Your task to perform on an android device: Go to Yahoo.com Image 0: 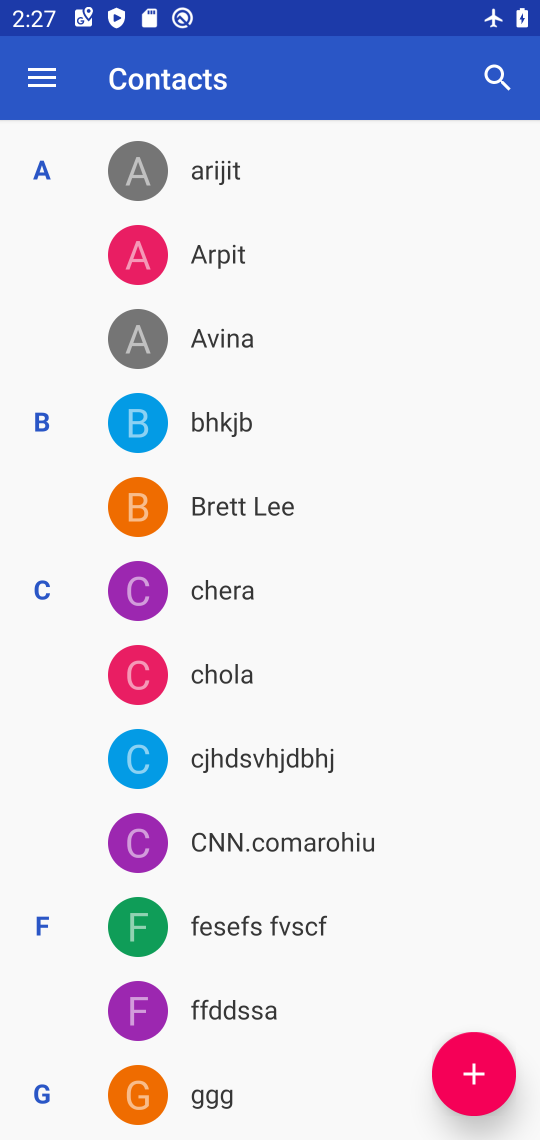
Step 0: press home button
Your task to perform on an android device: Go to Yahoo.com Image 1: 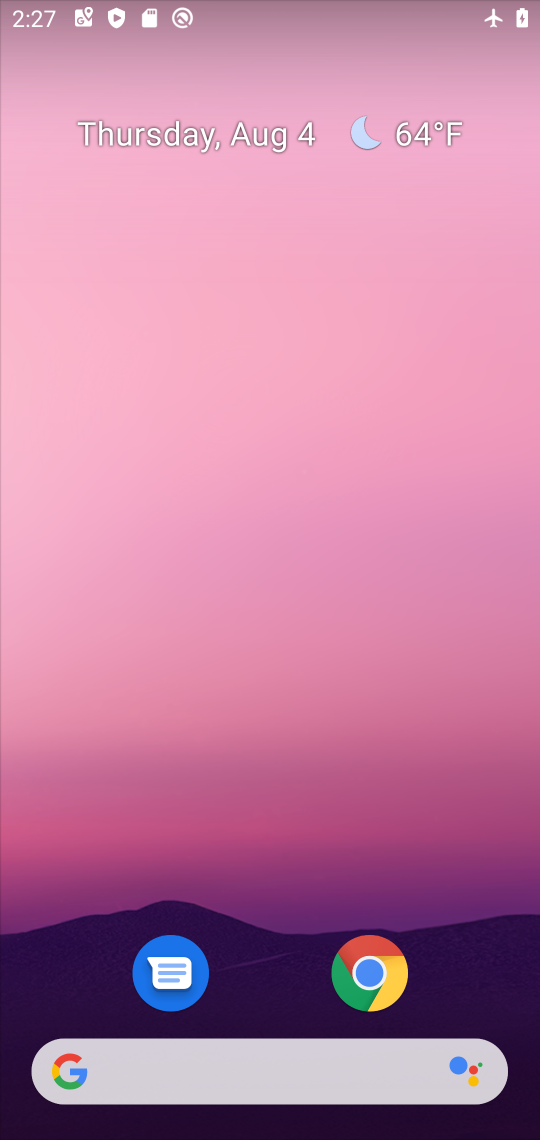
Step 1: click (339, 976)
Your task to perform on an android device: Go to Yahoo.com Image 2: 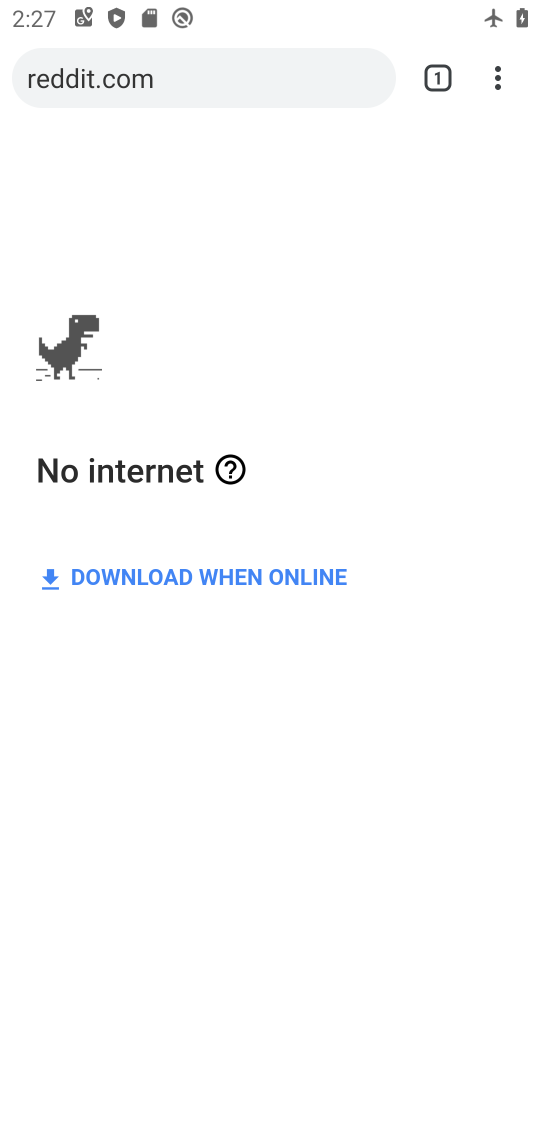
Step 2: click (444, 86)
Your task to perform on an android device: Go to Yahoo.com Image 3: 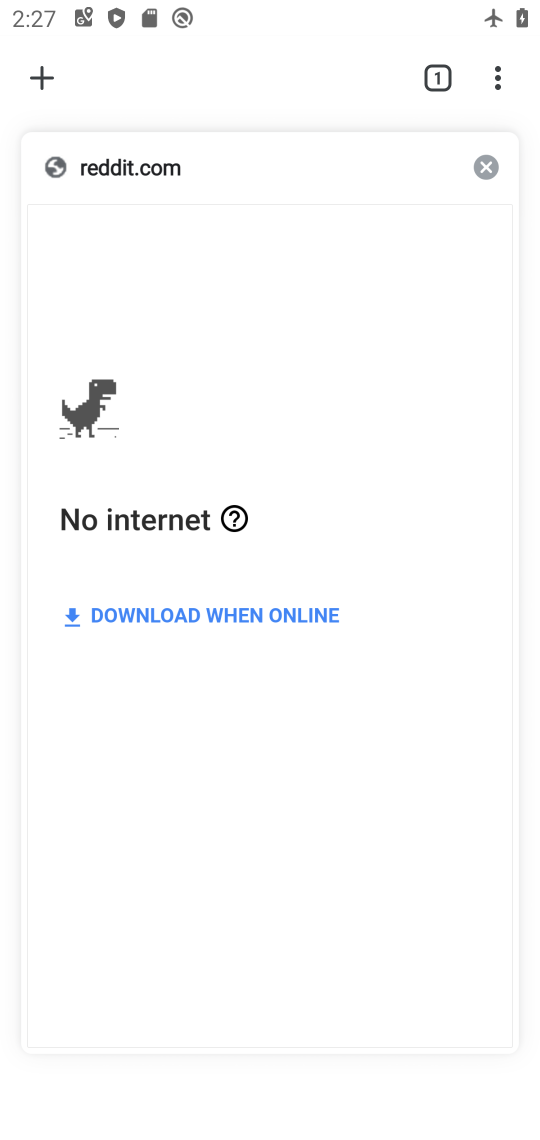
Step 3: click (30, 86)
Your task to perform on an android device: Go to Yahoo.com Image 4: 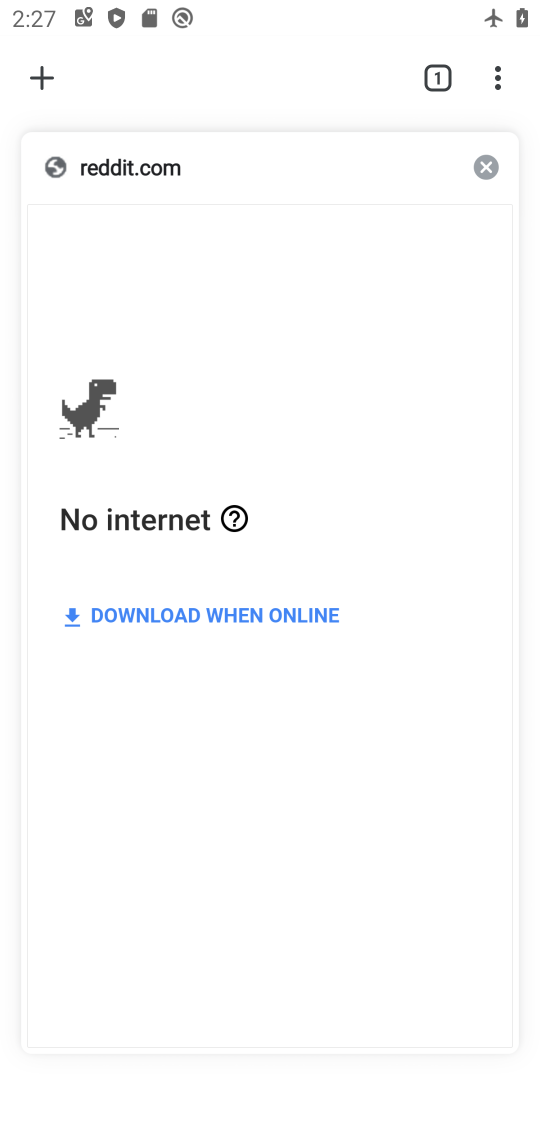
Step 4: click (29, 87)
Your task to perform on an android device: Go to Yahoo.com Image 5: 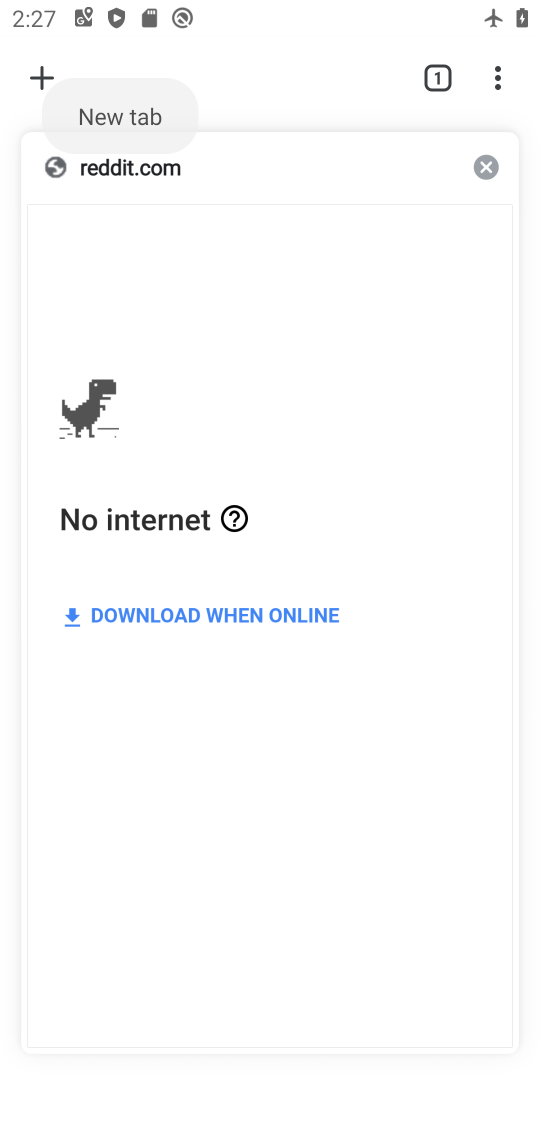
Step 5: click (35, 68)
Your task to perform on an android device: Go to Yahoo.com Image 6: 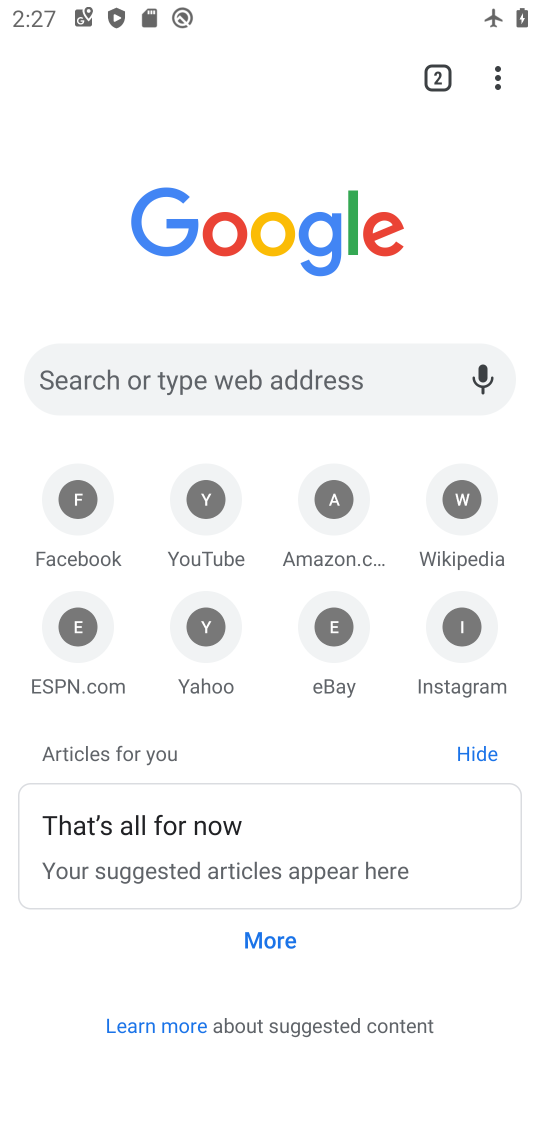
Step 6: click (204, 644)
Your task to perform on an android device: Go to Yahoo.com Image 7: 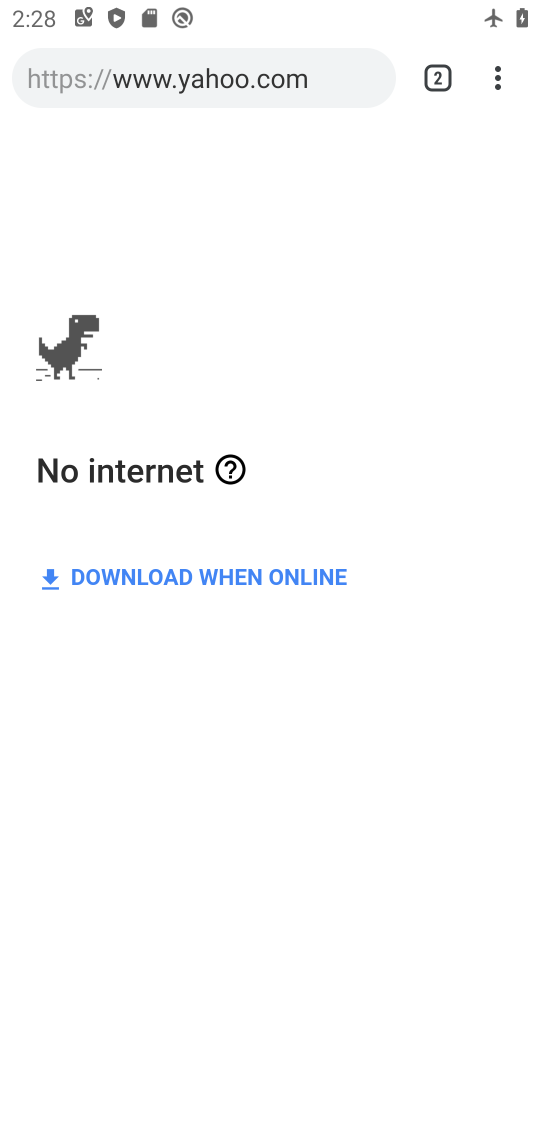
Step 7: task complete